Your task to perform on an android device: Open Yahoo.com Image 0: 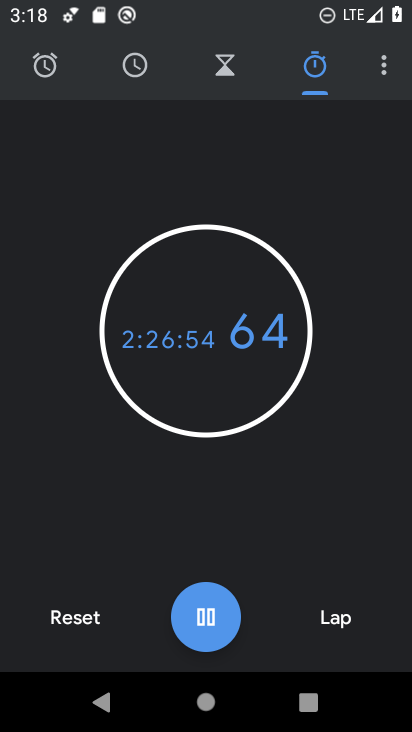
Step 0: press home button
Your task to perform on an android device: Open Yahoo.com Image 1: 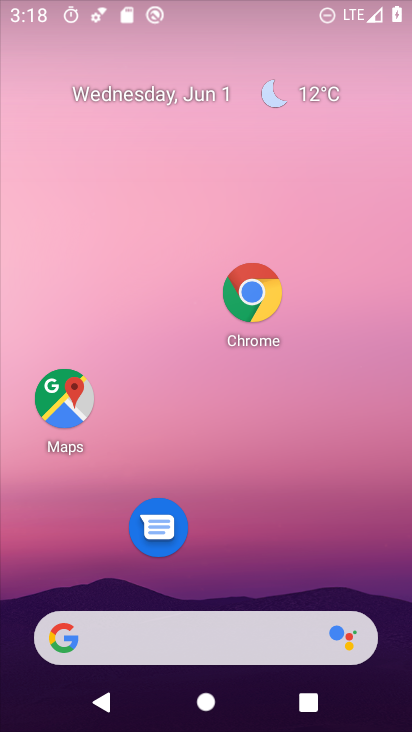
Step 1: drag from (224, 624) to (235, 385)
Your task to perform on an android device: Open Yahoo.com Image 2: 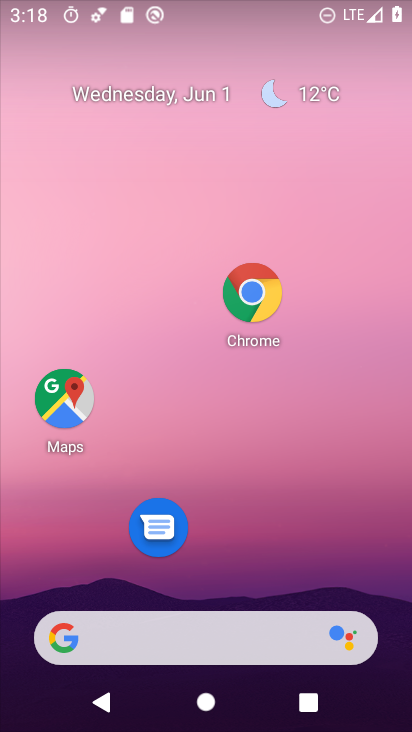
Step 2: click (261, 313)
Your task to perform on an android device: Open Yahoo.com Image 3: 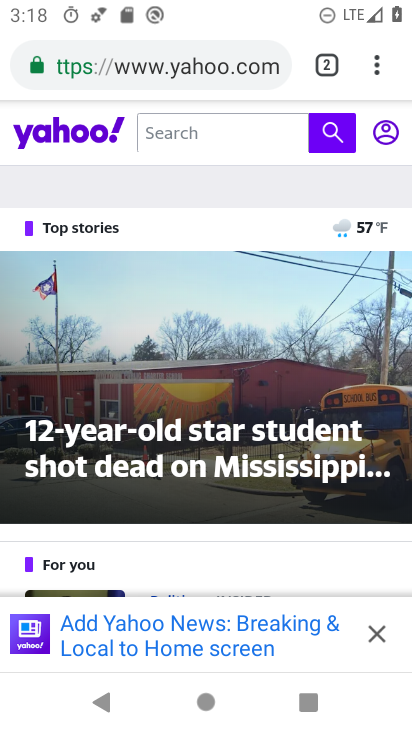
Step 3: click (256, 85)
Your task to perform on an android device: Open Yahoo.com Image 4: 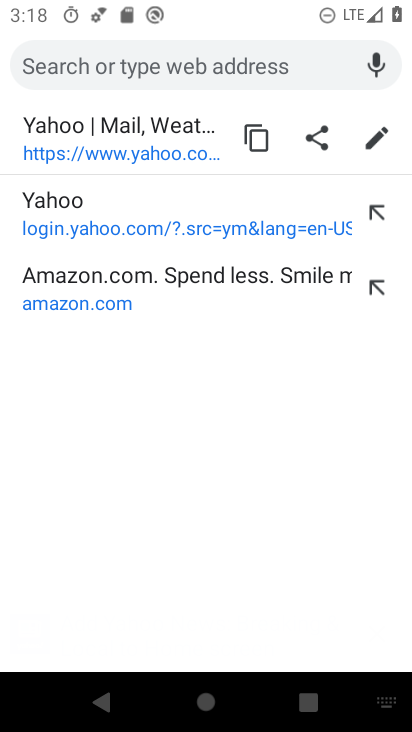
Step 4: click (154, 214)
Your task to perform on an android device: Open Yahoo.com Image 5: 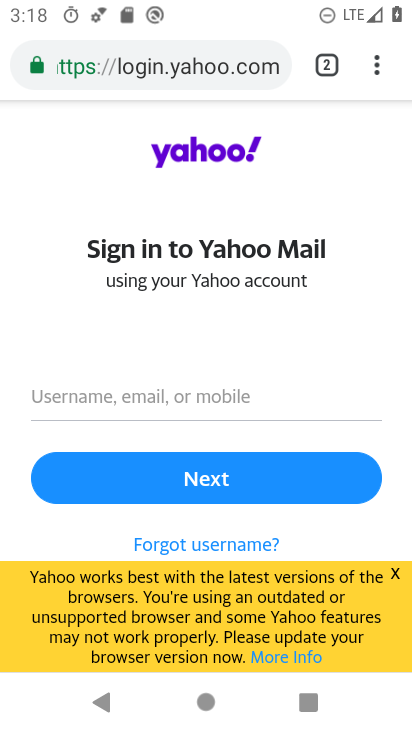
Step 5: task complete